Your task to perform on an android device: Open Google Maps Image 0: 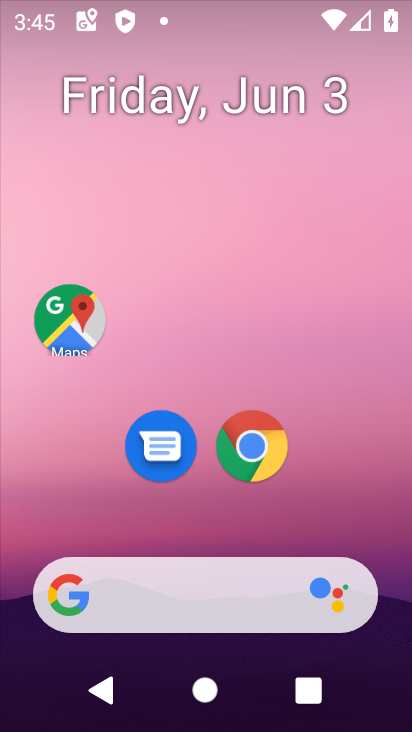
Step 0: task complete